Your task to perform on an android device: toggle location history Image 0: 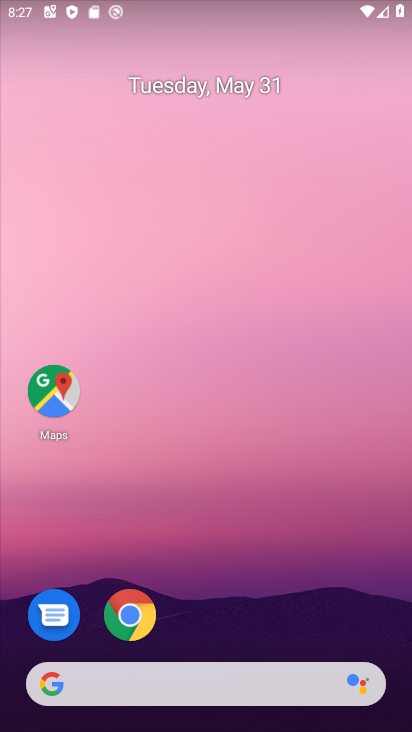
Step 0: click (57, 390)
Your task to perform on an android device: toggle location history Image 1: 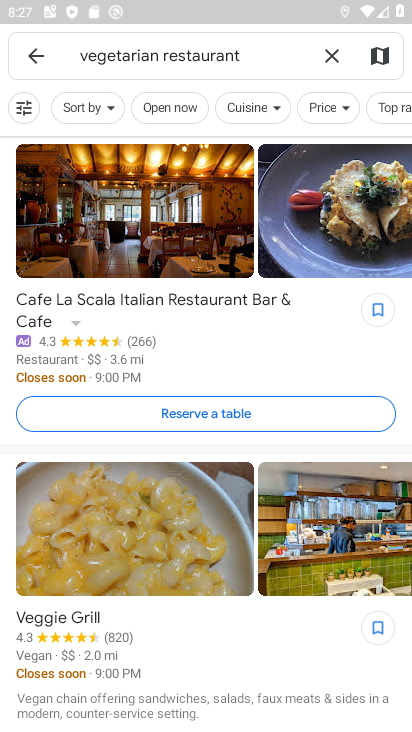
Step 1: click (332, 49)
Your task to perform on an android device: toggle location history Image 2: 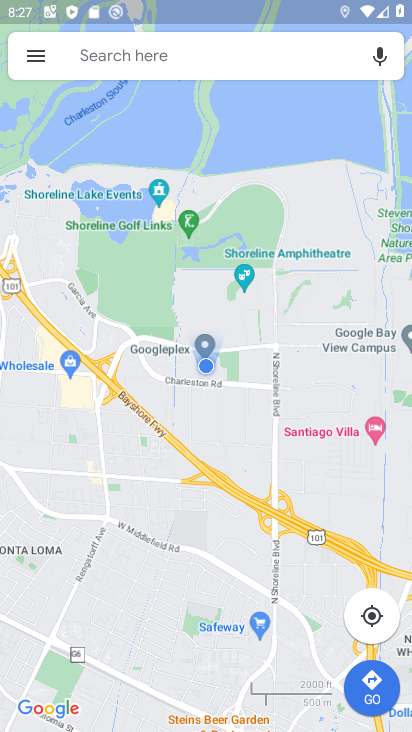
Step 2: click (42, 60)
Your task to perform on an android device: toggle location history Image 3: 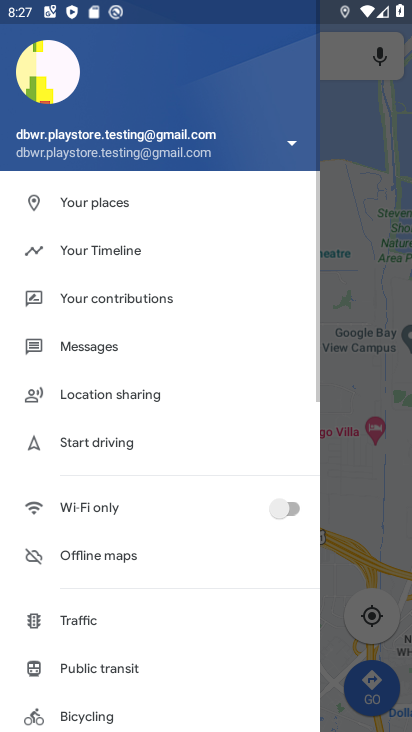
Step 3: drag from (180, 531) to (228, 175)
Your task to perform on an android device: toggle location history Image 4: 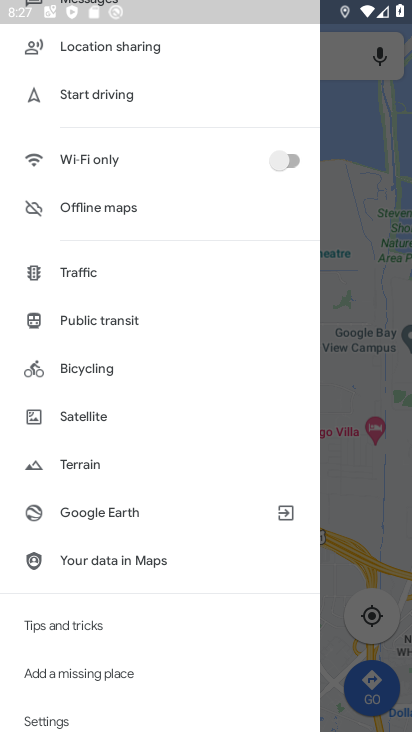
Step 4: drag from (193, 625) to (208, 329)
Your task to perform on an android device: toggle location history Image 5: 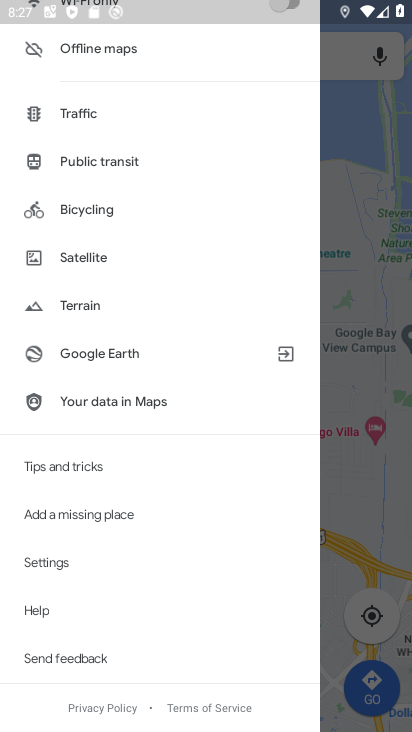
Step 5: click (42, 568)
Your task to perform on an android device: toggle location history Image 6: 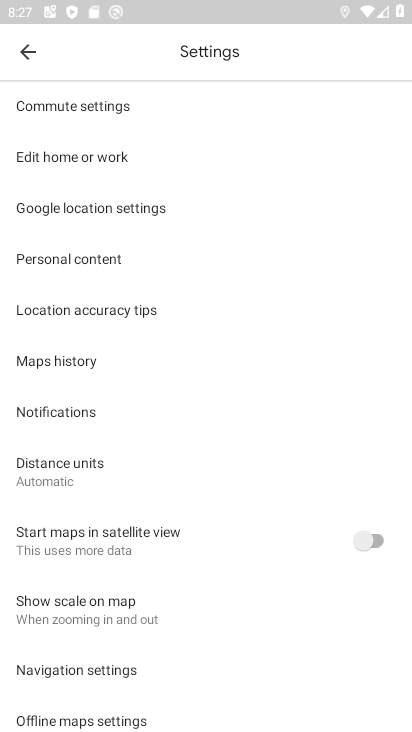
Step 6: click (72, 254)
Your task to perform on an android device: toggle location history Image 7: 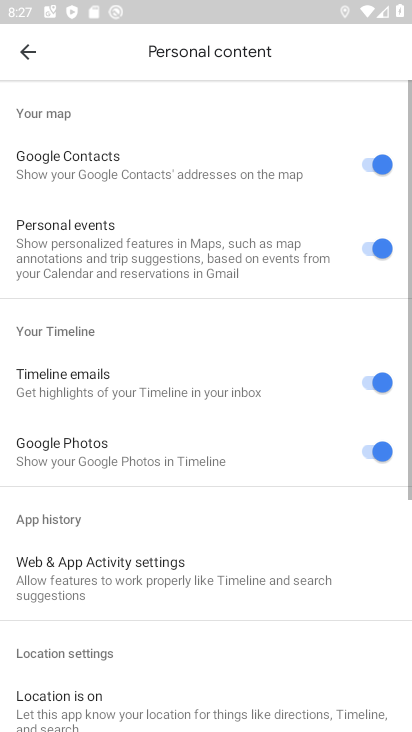
Step 7: drag from (246, 579) to (241, 229)
Your task to perform on an android device: toggle location history Image 8: 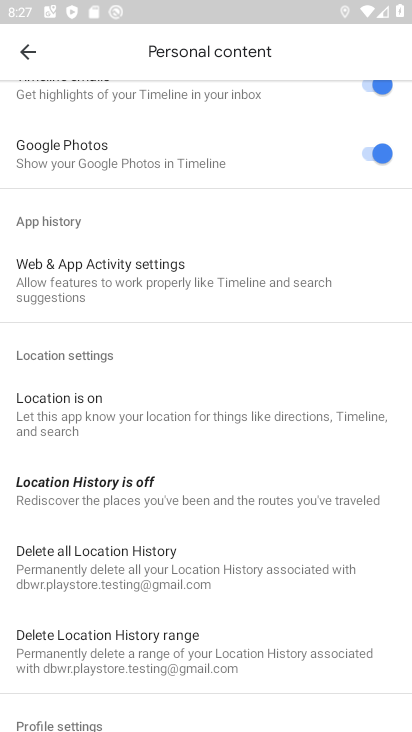
Step 8: click (66, 477)
Your task to perform on an android device: toggle location history Image 9: 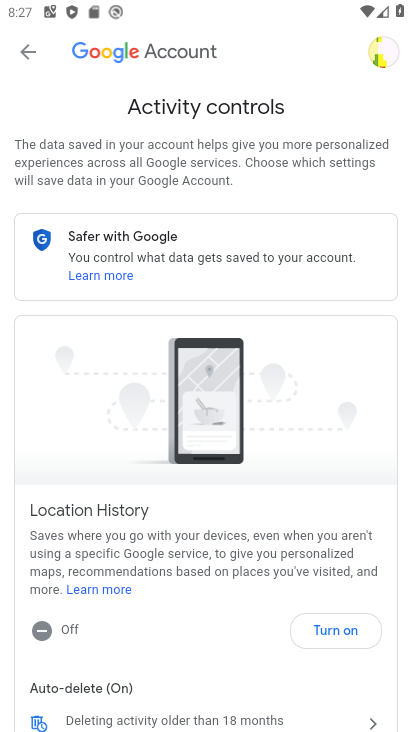
Step 9: click (340, 631)
Your task to perform on an android device: toggle location history Image 10: 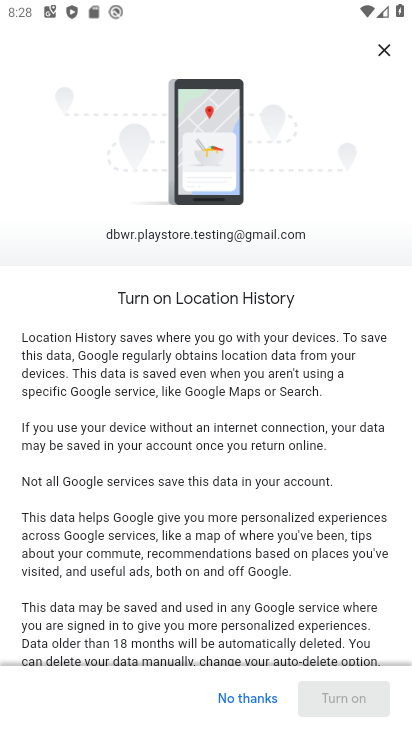
Step 10: drag from (281, 624) to (272, 193)
Your task to perform on an android device: toggle location history Image 11: 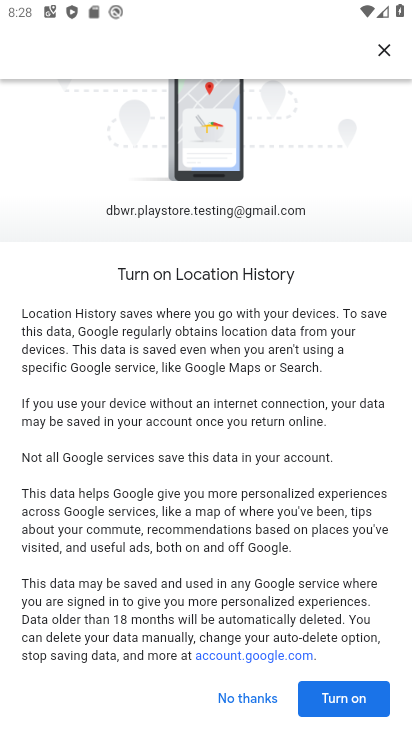
Step 11: click (342, 696)
Your task to perform on an android device: toggle location history Image 12: 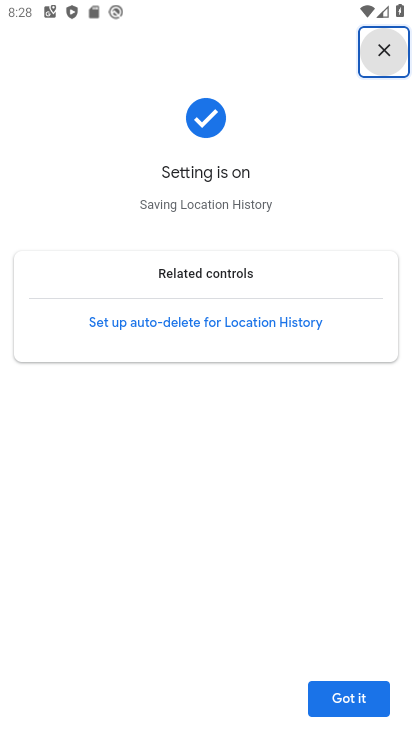
Step 12: click (353, 696)
Your task to perform on an android device: toggle location history Image 13: 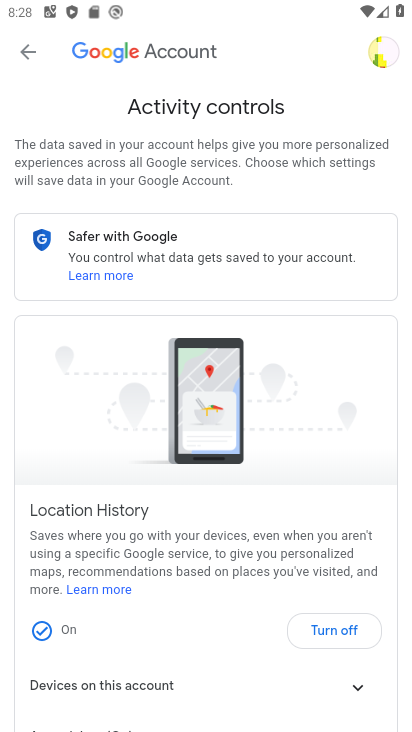
Step 13: task complete